Your task to perform on an android device: What's the weather going to be this weekend? Image 0: 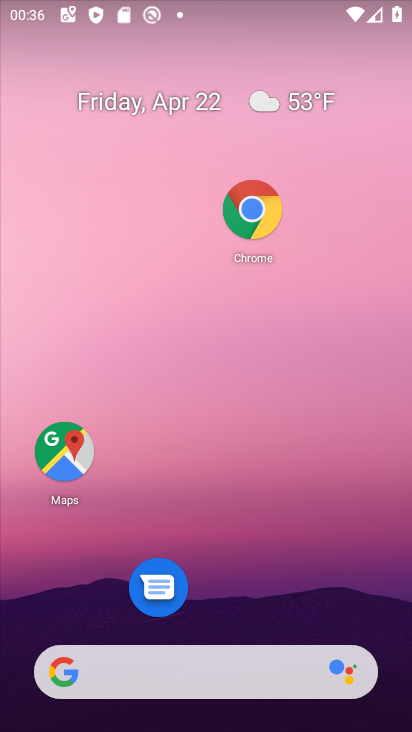
Step 0: drag from (286, 605) to (223, 47)
Your task to perform on an android device: What's the weather going to be this weekend? Image 1: 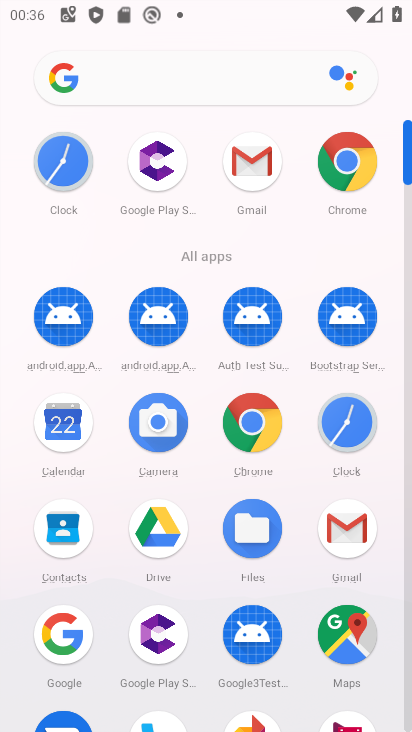
Step 1: click (249, 424)
Your task to perform on an android device: What's the weather going to be this weekend? Image 2: 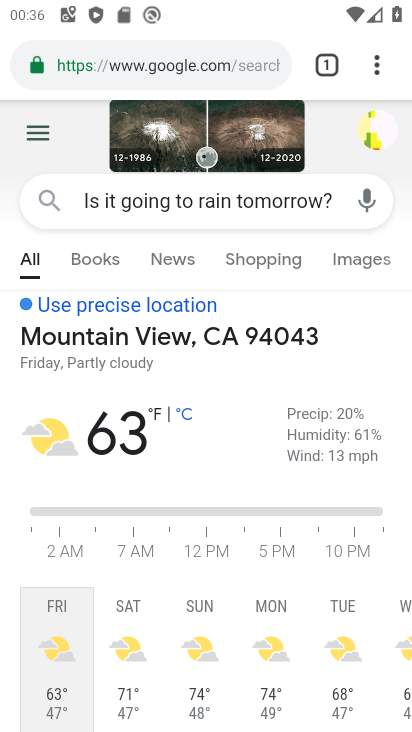
Step 2: click (241, 67)
Your task to perform on an android device: What's the weather going to be this weekend? Image 3: 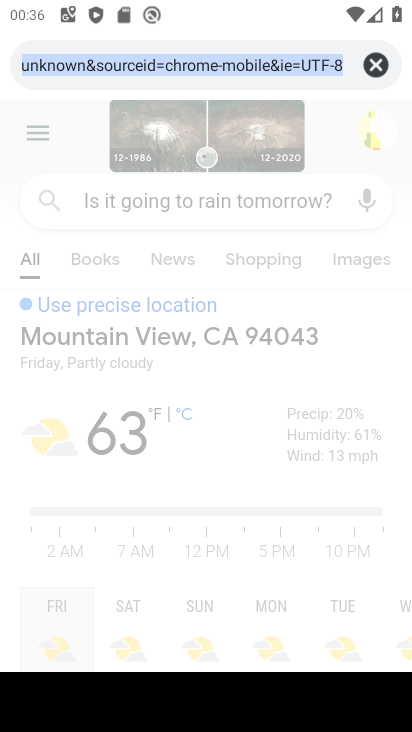
Step 3: click (380, 56)
Your task to perform on an android device: What's the weather going to be this weekend? Image 4: 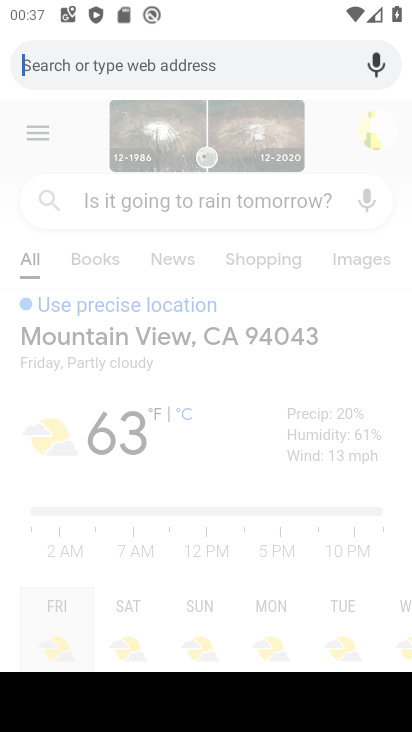
Step 4: type "What's the weather going to be this weekend?"
Your task to perform on an android device: What's the weather going to be this weekend? Image 5: 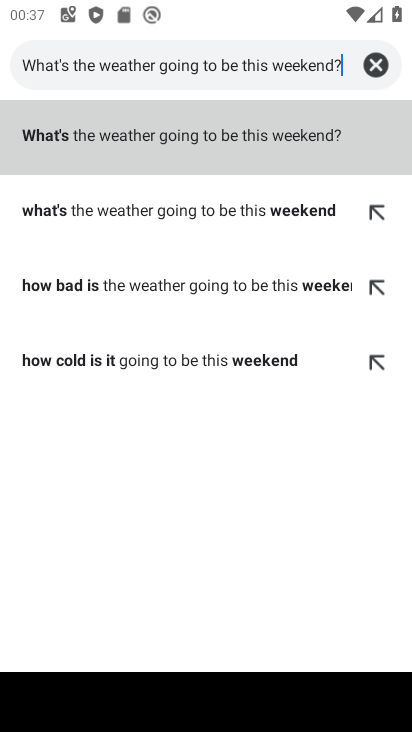
Step 5: click (205, 138)
Your task to perform on an android device: What's the weather going to be this weekend? Image 6: 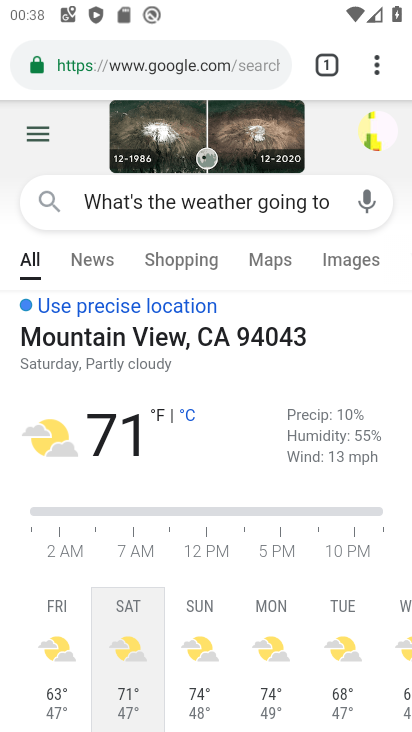
Step 6: task complete